Your task to perform on an android device: move an email to a new category in the gmail app Image 0: 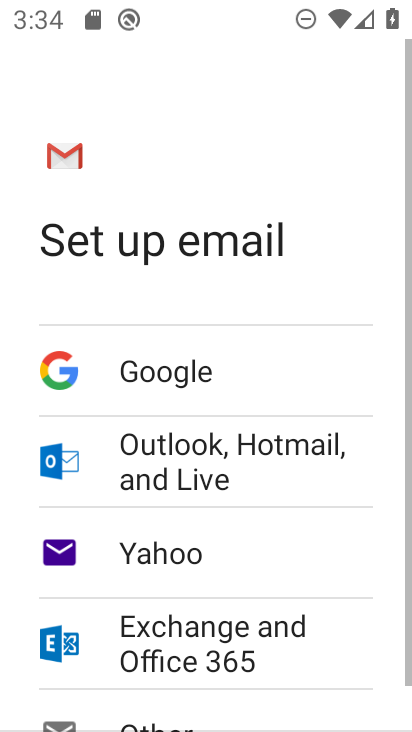
Step 0: press home button
Your task to perform on an android device: move an email to a new category in the gmail app Image 1: 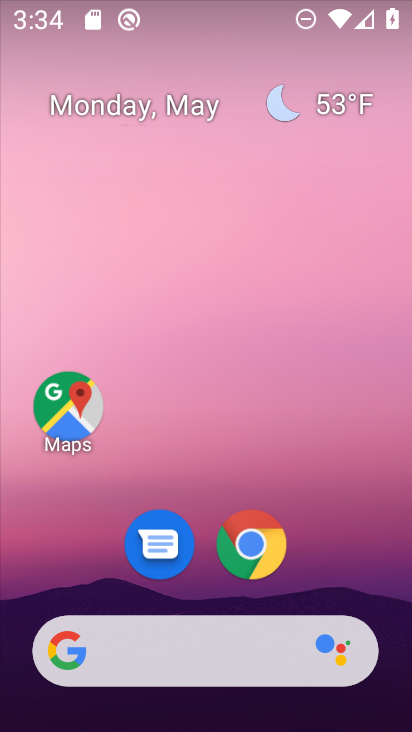
Step 1: drag from (140, 726) to (85, 28)
Your task to perform on an android device: move an email to a new category in the gmail app Image 2: 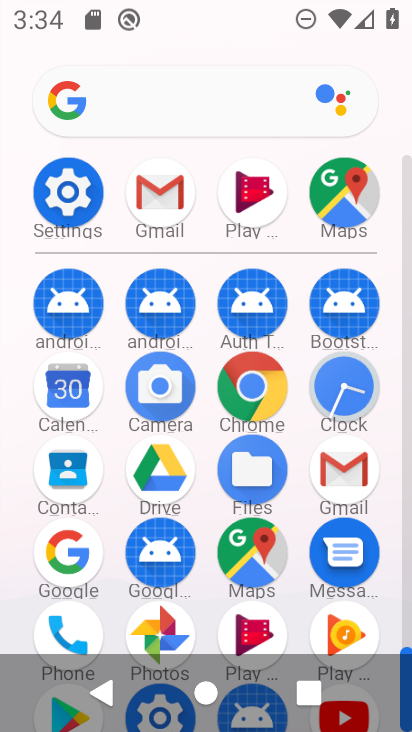
Step 2: click (355, 483)
Your task to perform on an android device: move an email to a new category in the gmail app Image 3: 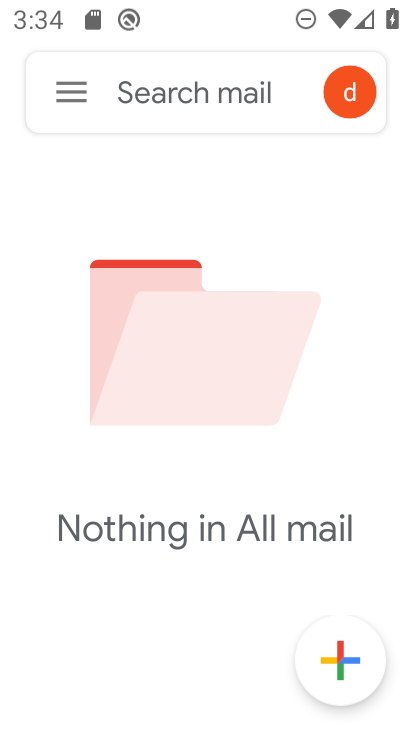
Step 3: click (83, 99)
Your task to perform on an android device: move an email to a new category in the gmail app Image 4: 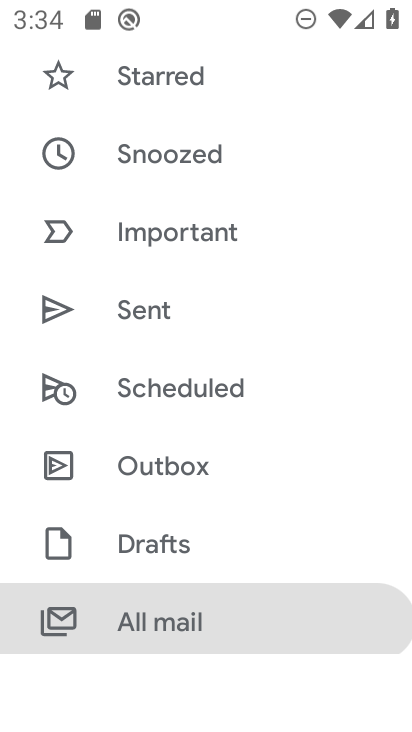
Step 4: drag from (289, 178) to (311, 683)
Your task to perform on an android device: move an email to a new category in the gmail app Image 5: 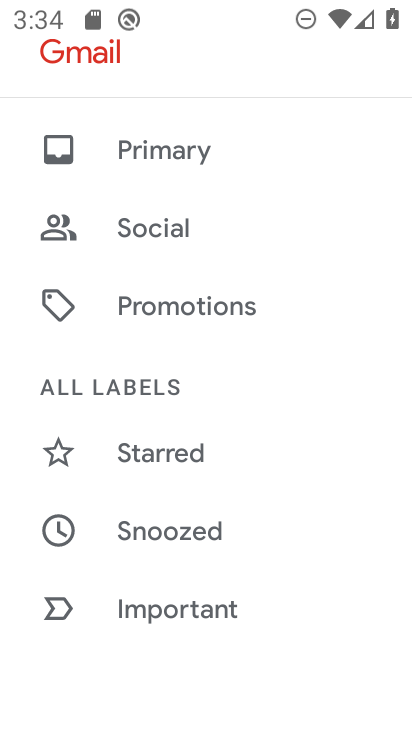
Step 5: click (176, 146)
Your task to perform on an android device: move an email to a new category in the gmail app Image 6: 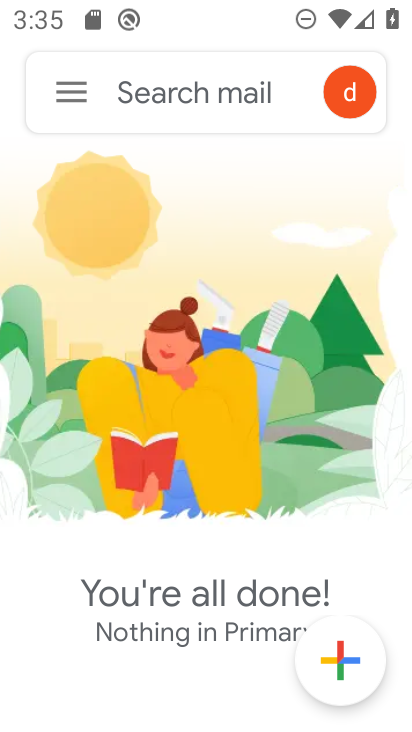
Step 6: task complete